Your task to perform on an android device: Open Yahoo.com Image 0: 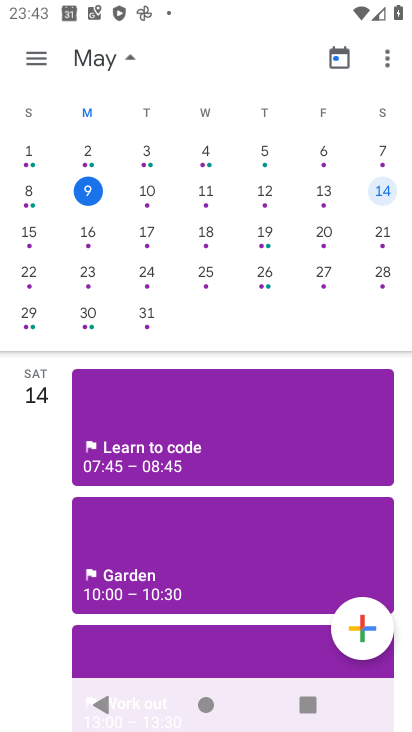
Step 0: press home button
Your task to perform on an android device: Open Yahoo.com Image 1: 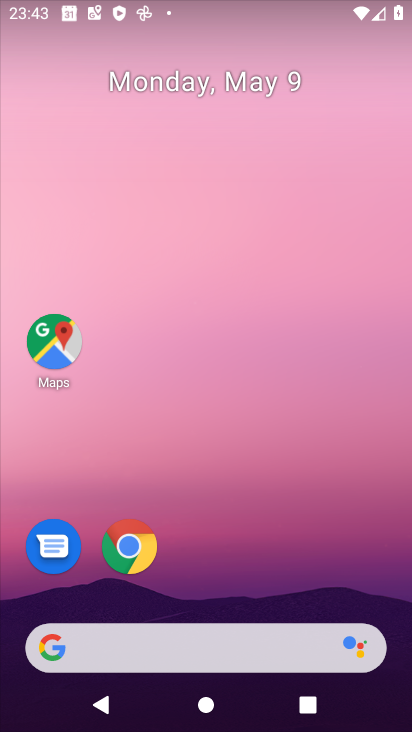
Step 1: click (200, 645)
Your task to perform on an android device: Open Yahoo.com Image 2: 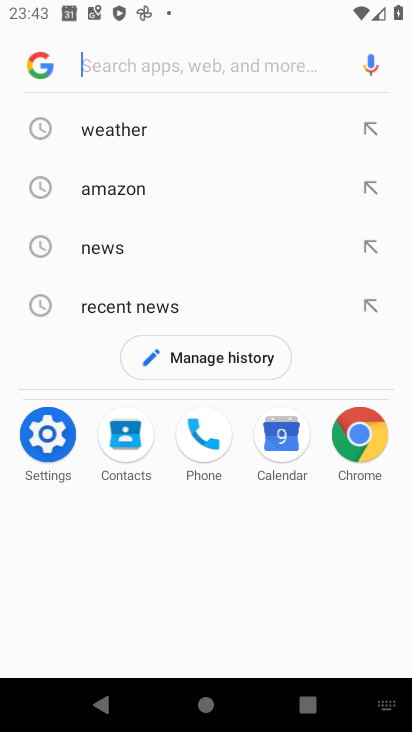
Step 2: type "yahoo.com"
Your task to perform on an android device: Open Yahoo.com Image 3: 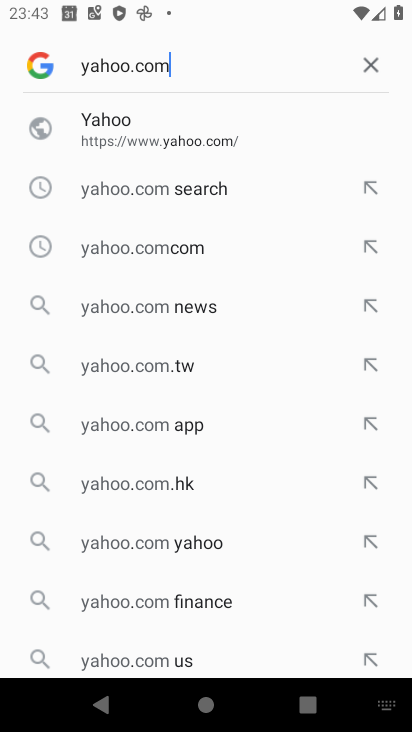
Step 3: click (215, 132)
Your task to perform on an android device: Open Yahoo.com Image 4: 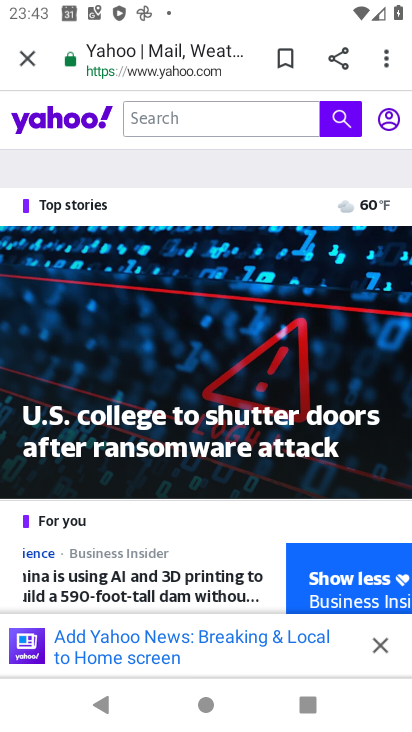
Step 4: task complete